Your task to perform on an android device: Search for seafood restaurants on Google Maps Image 0: 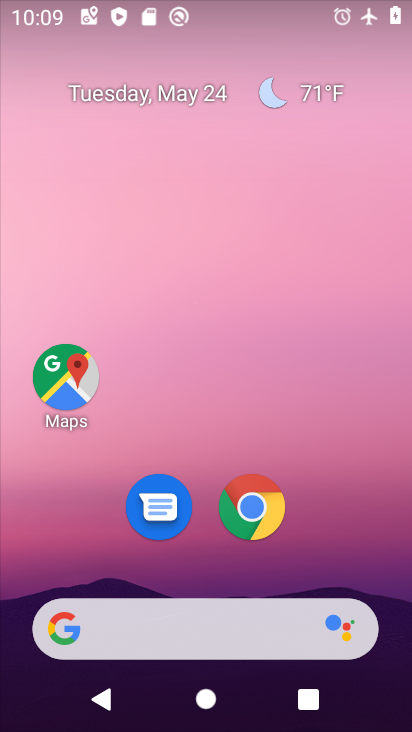
Step 0: drag from (224, 719) to (196, 155)
Your task to perform on an android device: Search for seafood restaurants on Google Maps Image 1: 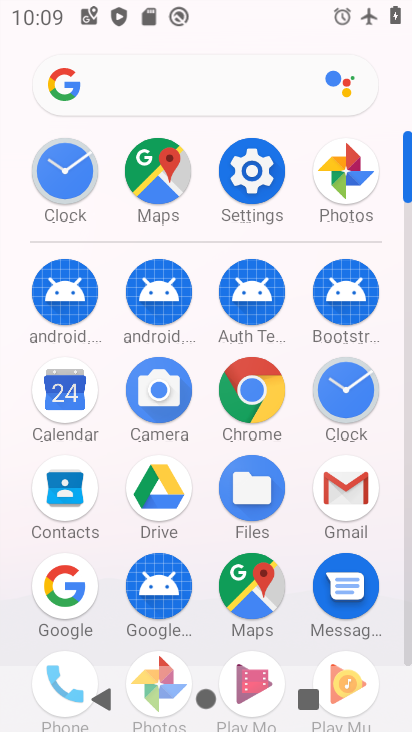
Step 1: click (249, 583)
Your task to perform on an android device: Search for seafood restaurants on Google Maps Image 2: 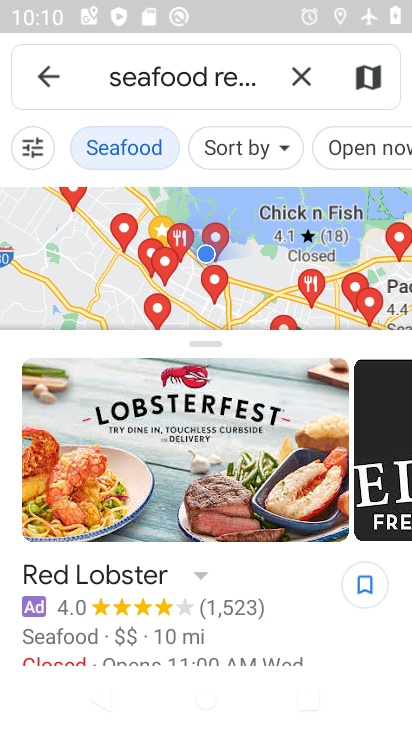
Step 2: task complete